Your task to perform on an android device: Open the stopwatch Image 0: 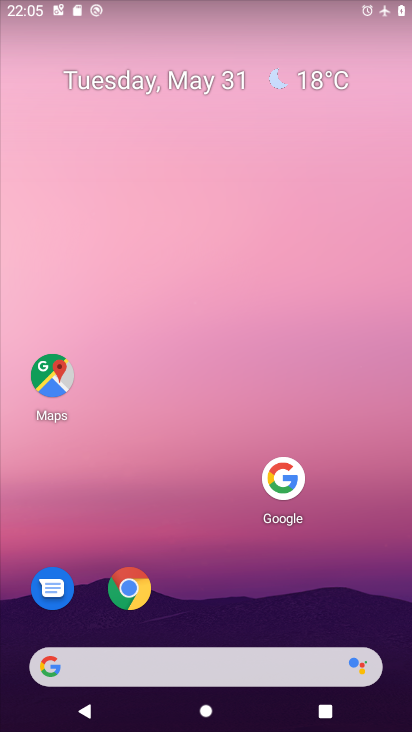
Step 0: press home button
Your task to perform on an android device: Open the stopwatch Image 1: 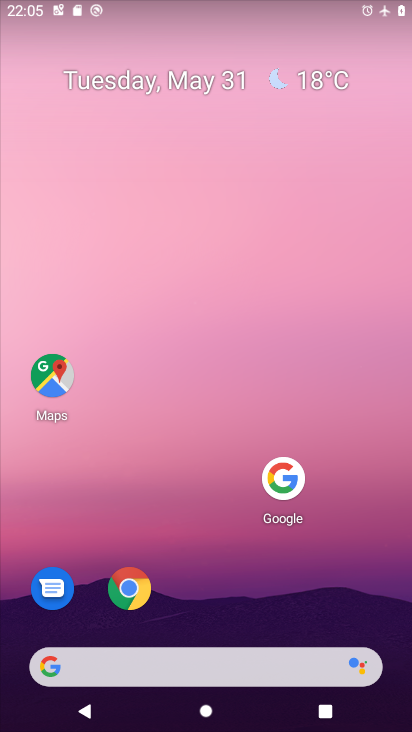
Step 1: drag from (172, 601) to (283, 133)
Your task to perform on an android device: Open the stopwatch Image 2: 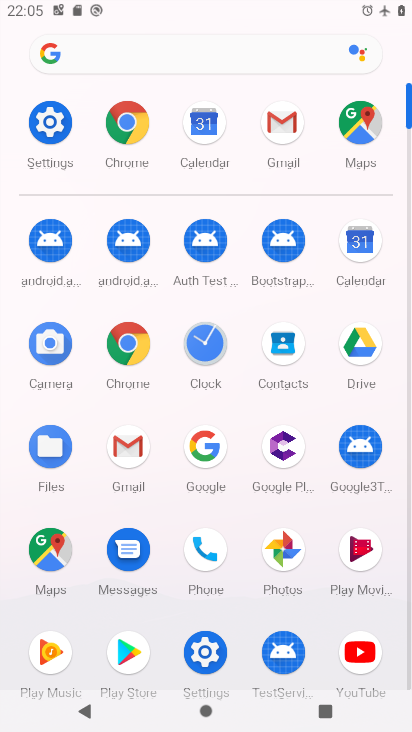
Step 2: click (199, 355)
Your task to perform on an android device: Open the stopwatch Image 3: 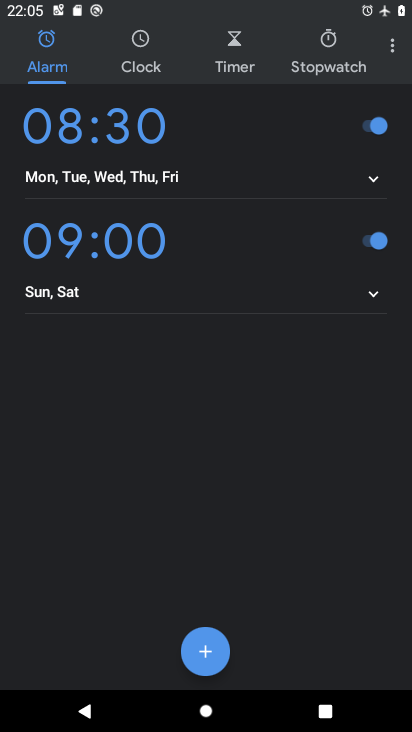
Step 3: click (320, 64)
Your task to perform on an android device: Open the stopwatch Image 4: 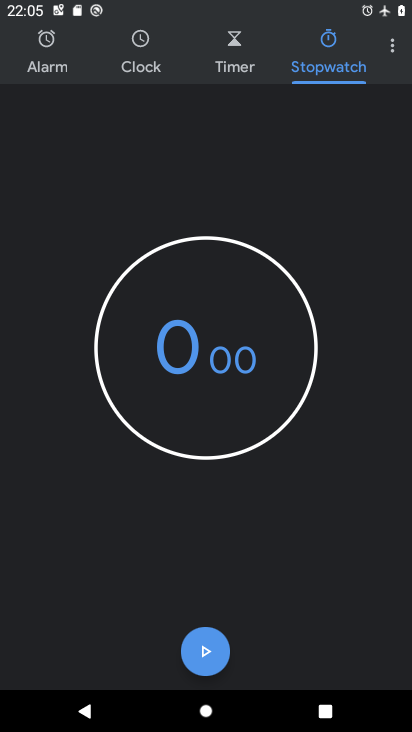
Step 4: task complete